Your task to perform on an android device: toggle translation in the chrome app Image 0: 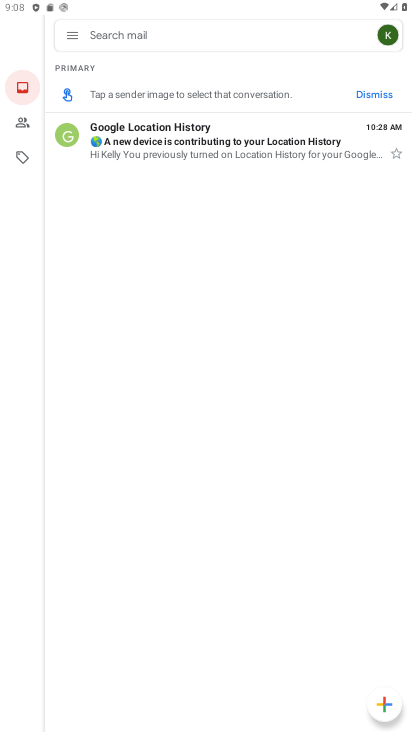
Step 0: press home button
Your task to perform on an android device: toggle translation in the chrome app Image 1: 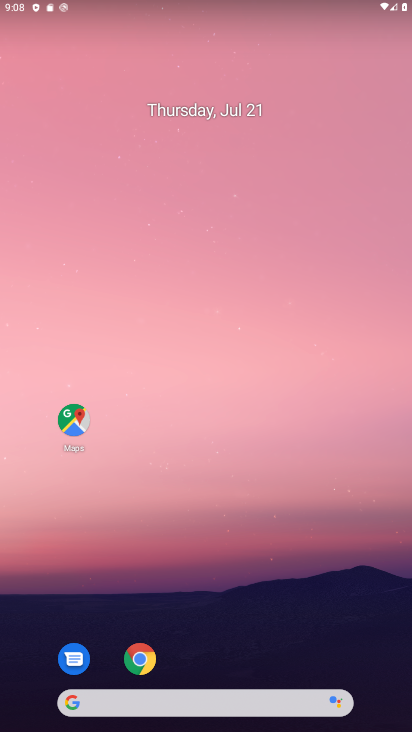
Step 1: click (151, 666)
Your task to perform on an android device: toggle translation in the chrome app Image 2: 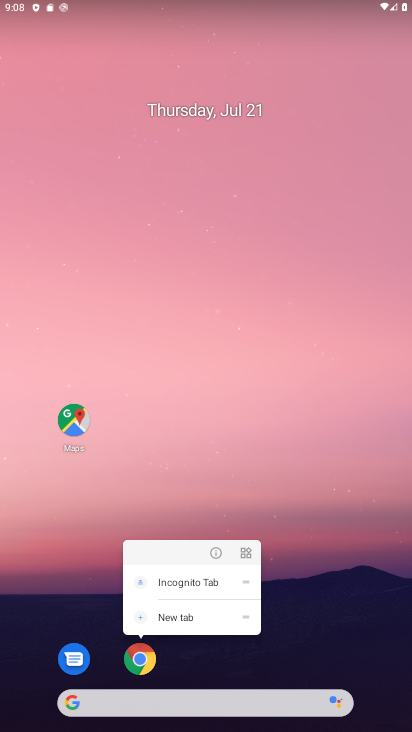
Step 2: click (139, 646)
Your task to perform on an android device: toggle translation in the chrome app Image 3: 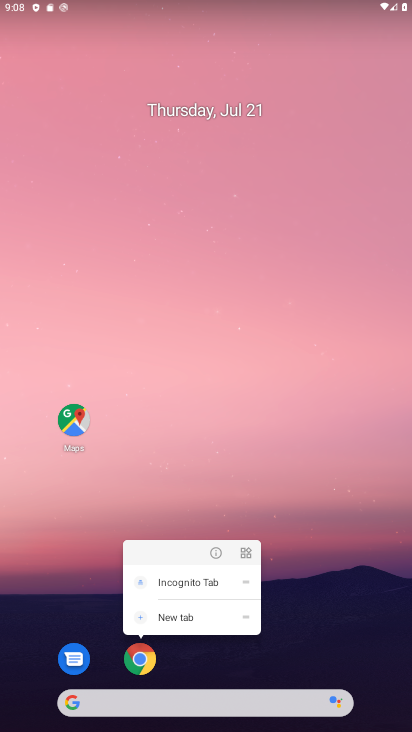
Step 3: click (139, 650)
Your task to perform on an android device: toggle translation in the chrome app Image 4: 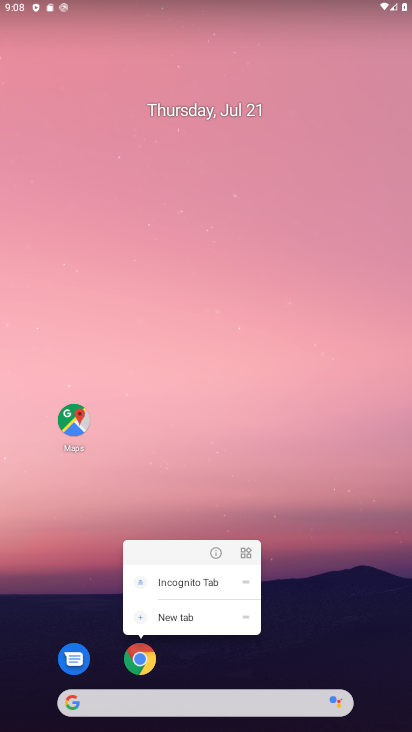
Step 4: click (140, 656)
Your task to perform on an android device: toggle translation in the chrome app Image 5: 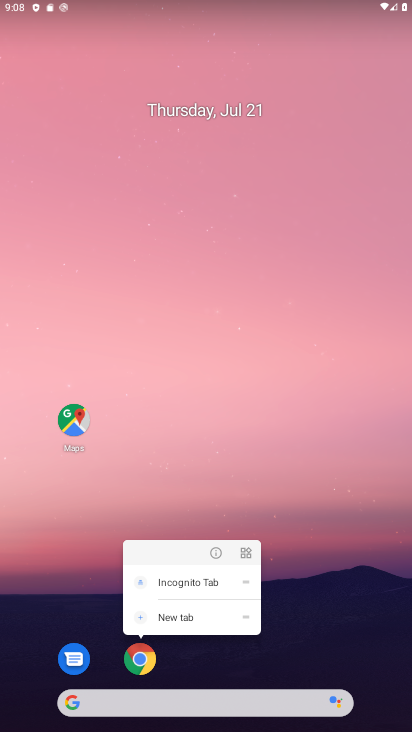
Step 5: click (140, 655)
Your task to perform on an android device: toggle translation in the chrome app Image 6: 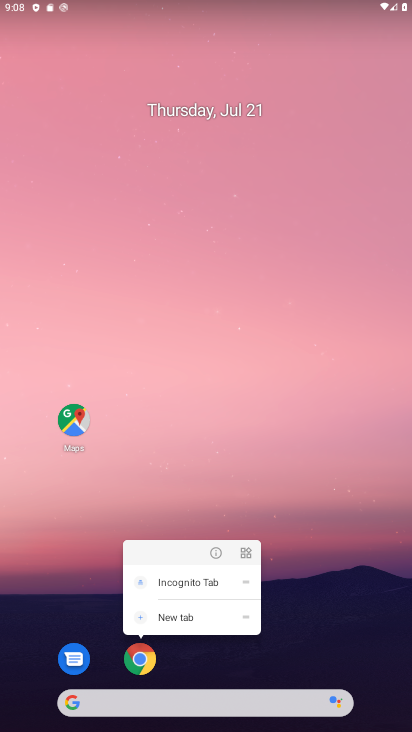
Step 6: click (135, 669)
Your task to perform on an android device: toggle translation in the chrome app Image 7: 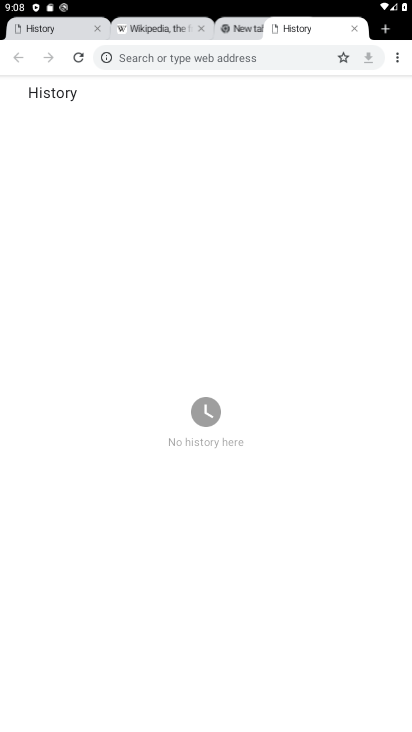
Step 7: drag from (392, 56) to (295, 262)
Your task to perform on an android device: toggle translation in the chrome app Image 8: 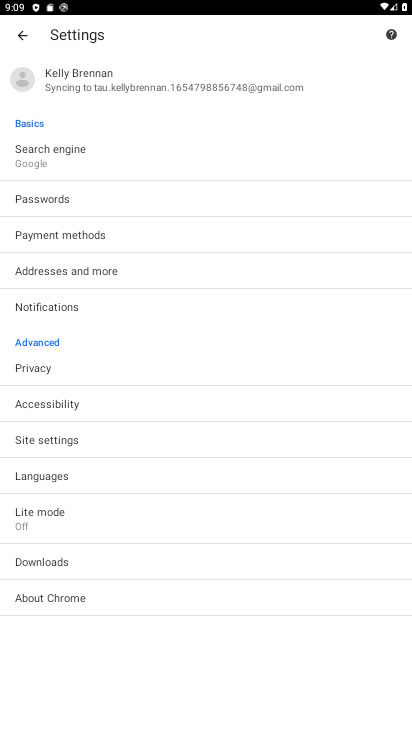
Step 8: click (35, 480)
Your task to perform on an android device: toggle translation in the chrome app Image 9: 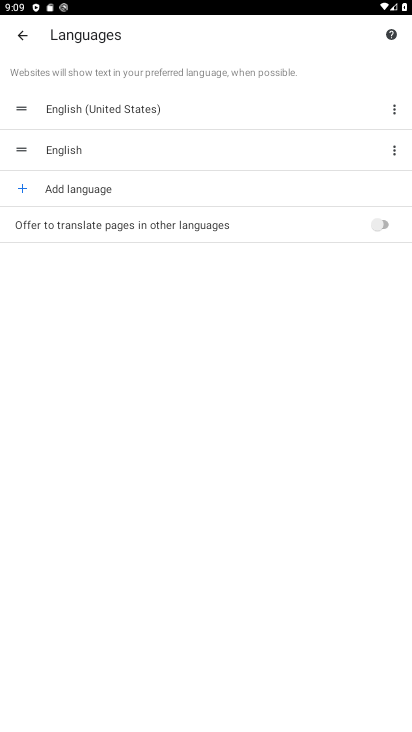
Step 9: click (367, 230)
Your task to perform on an android device: toggle translation in the chrome app Image 10: 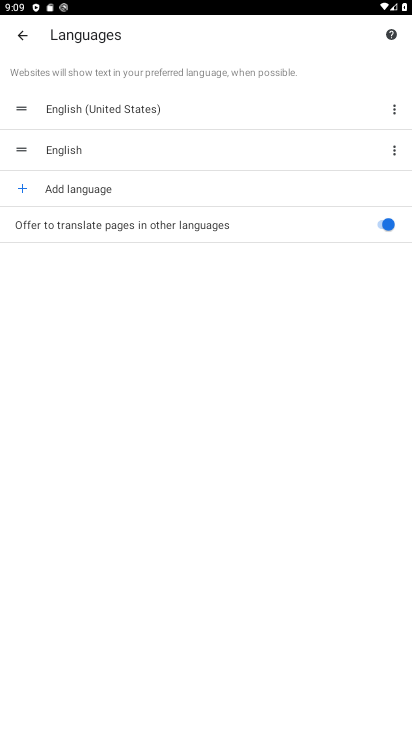
Step 10: click (371, 229)
Your task to perform on an android device: toggle translation in the chrome app Image 11: 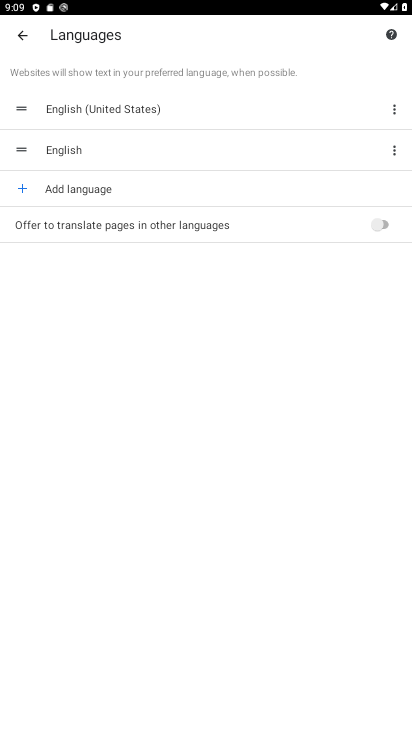
Step 11: task complete